Your task to perform on an android device: turn off sleep mode Image 0: 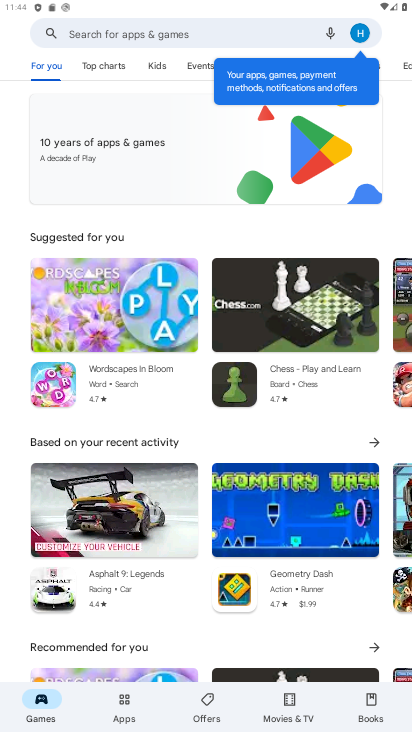
Step 0: press home button
Your task to perform on an android device: turn off sleep mode Image 1: 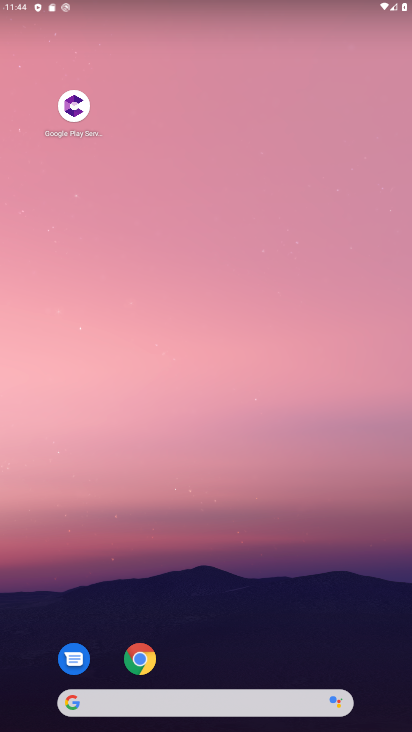
Step 1: task complete